Your task to perform on an android device: Go to accessibility settings Image 0: 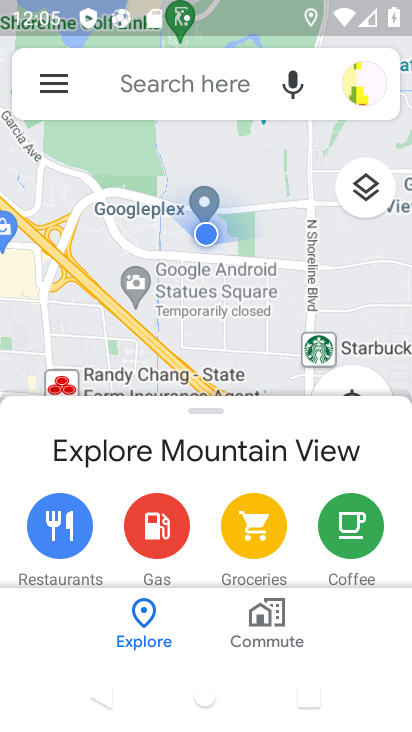
Step 0: press home button
Your task to perform on an android device: Go to accessibility settings Image 1: 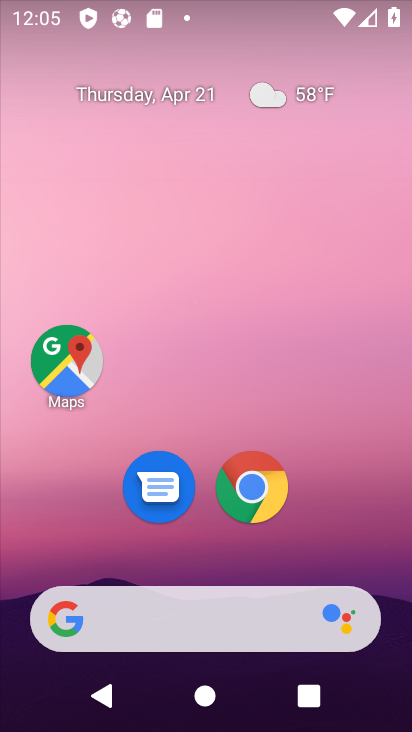
Step 1: drag from (363, 579) to (333, 0)
Your task to perform on an android device: Go to accessibility settings Image 2: 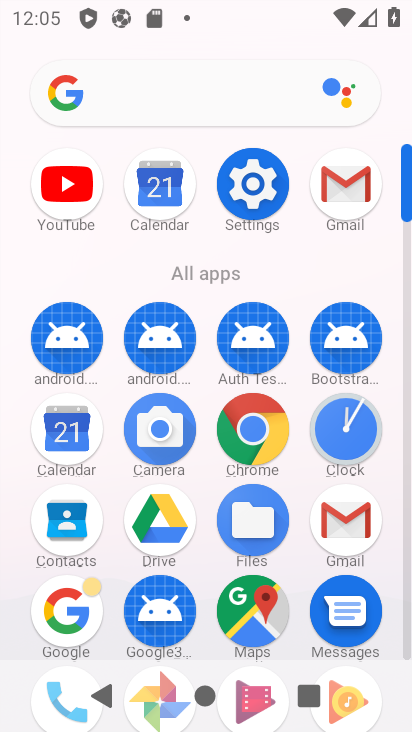
Step 2: click (251, 187)
Your task to perform on an android device: Go to accessibility settings Image 3: 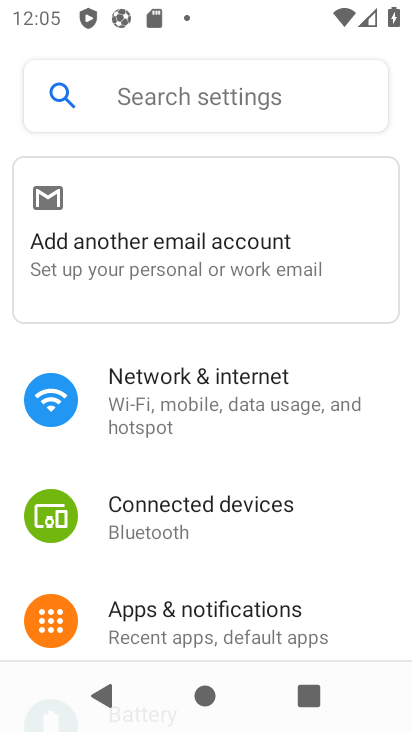
Step 3: drag from (361, 519) to (331, 107)
Your task to perform on an android device: Go to accessibility settings Image 4: 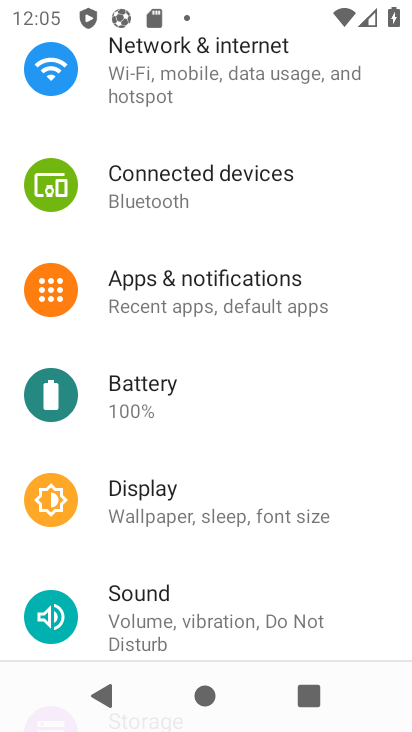
Step 4: drag from (309, 502) to (308, 99)
Your task to perform on an android device: Go to accessibility settings Image 5: 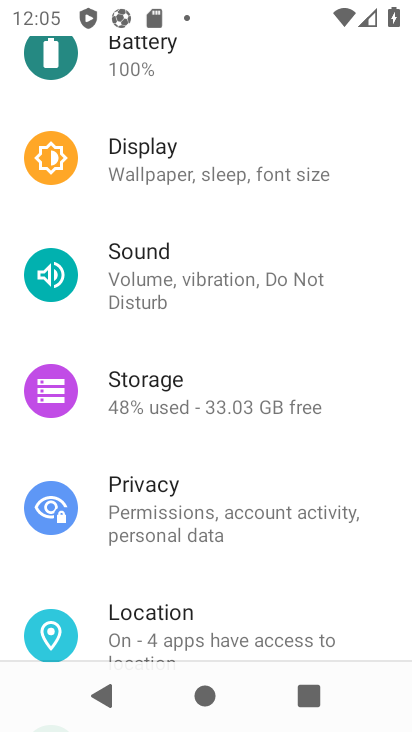
Step 5: drag from (262, 544) to (232, 152)
Your task to perform on an android device: Go to accessibility settings Image 6: 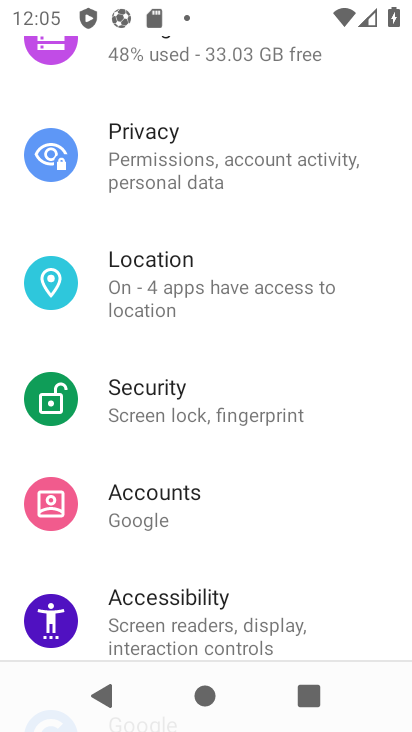
Step 6: click (182, 611)
Your task to perform on an android device: Go to accessibility settings Image 7: 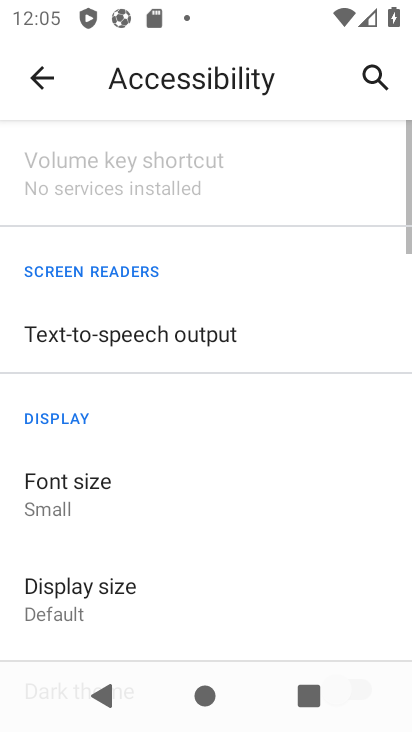
Step 7: task complete